Your task to perform on an android device: turn on translation in the chrome app Image 0: 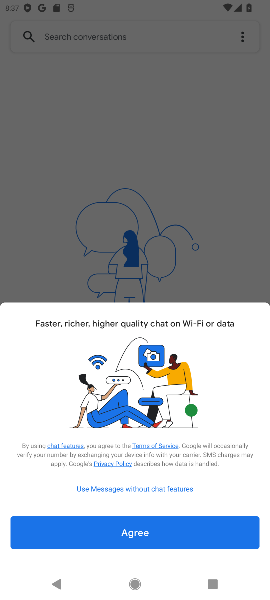
Step 0: press home button
Your task to perform on an android device: turn on translation in the chrome app Image 1: 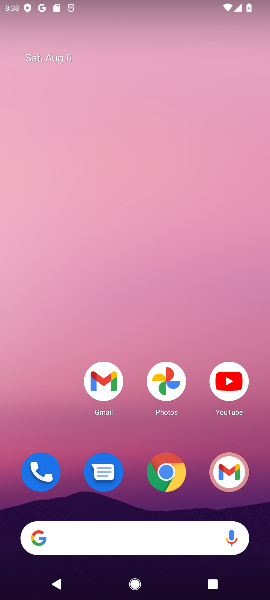
Step 1: click (167, 474)
Your task to perform on an android device: turn on translation in the chrome app Image 2: 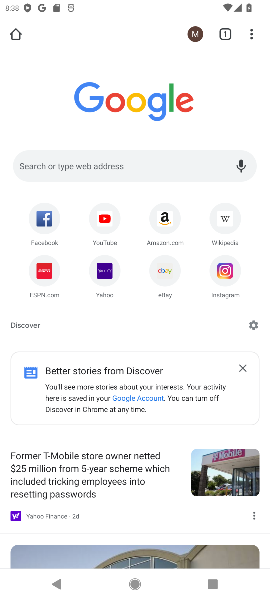
Step 2: click (253, 37)
Your task to perform on an android device: turn on translation in the chrome app Image 3: 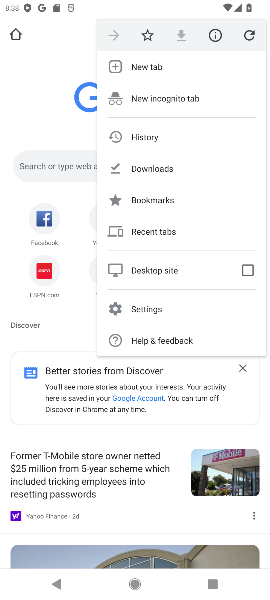
Step 3: click (146, 307)
Your task to perform on an android device: turn on translation in the chrome app Image 4: 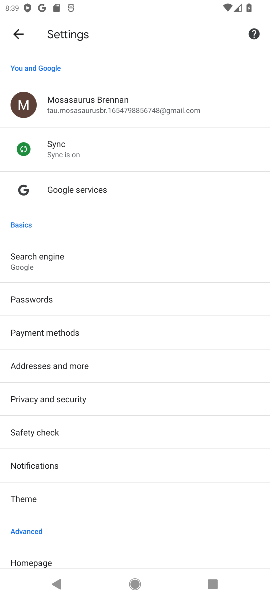
Step 4: drag from (147, 513) to (189, 225)
Your task to perform on an android device: turn on translation in the chrome app Image 5: 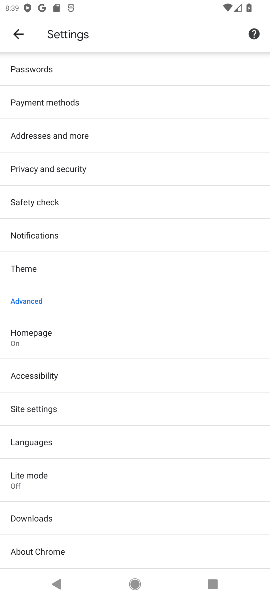
Step 5: click (45, 441)
Your task to perform on an android device: turn on translation in the chrome app Image 6: 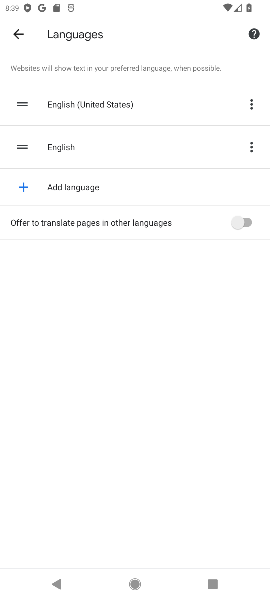
Step 6: click (251, 226)
Your task to perform on an android device: turn on translation in the chrome app Image 7: 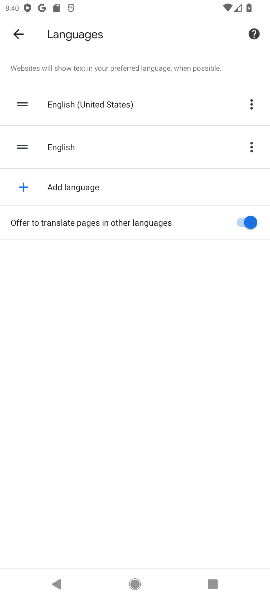
Step 7: task complete